Your task to perform on an android device: check the backup settings in the google photos Image 0: 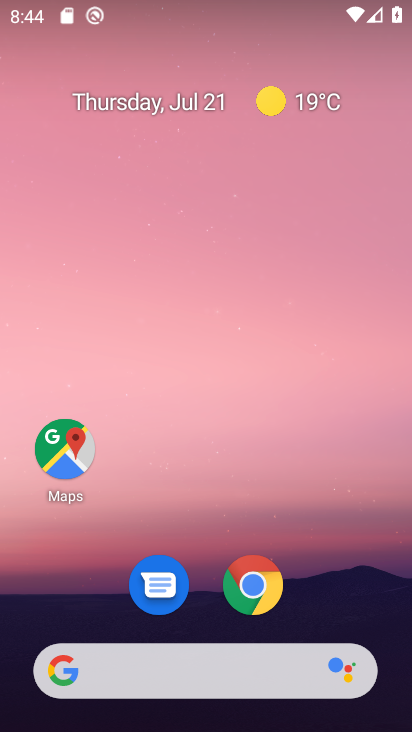
Step 0: drag from (332, 585) to (322, 88)
Your task to perform on an android device: check the backup settings in the google photos Image 1: 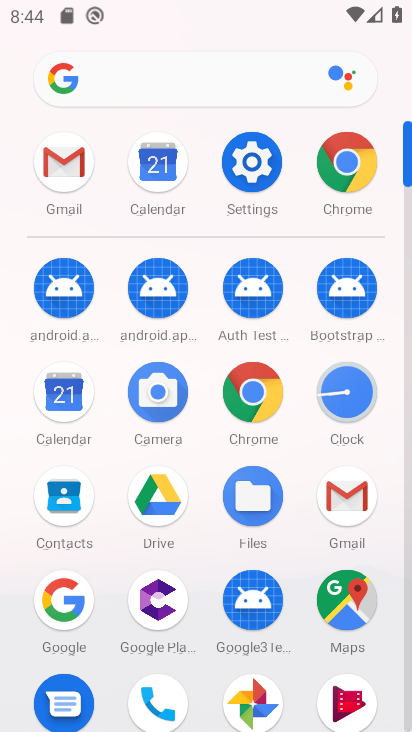
Step 1: drag from (303, 380) to (303, 163)
Your task to perform on an android device: check the backup settings in the google photos Image 2: 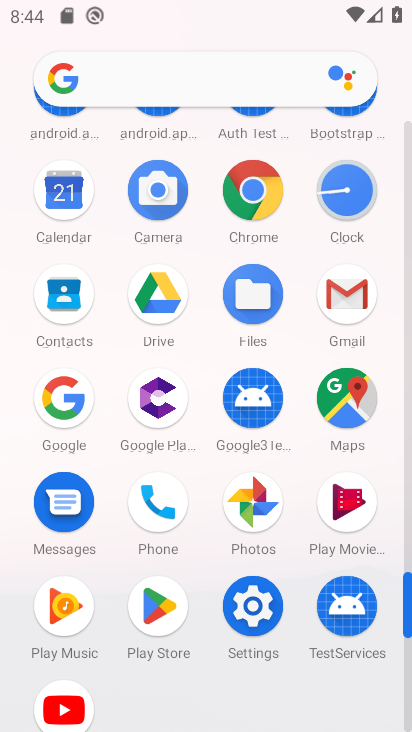
Step 2: click (262, 495)
Your task to perform on an android device: check the backup settings in the google photos Image 3: 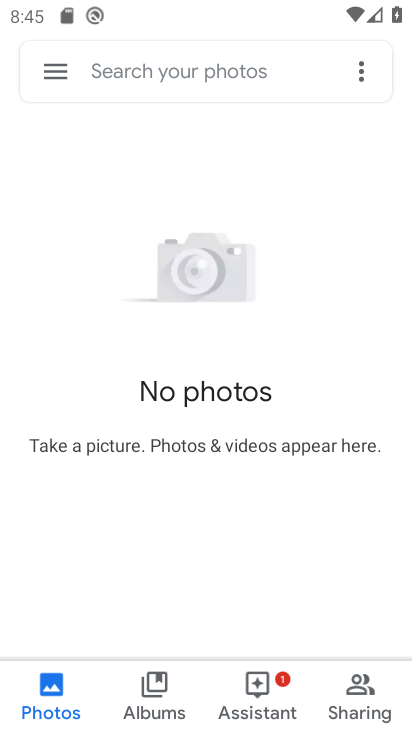
Step 3: click (54, 67)
Your task to perform on an android device: check the backup settings in the google photos Image 4: 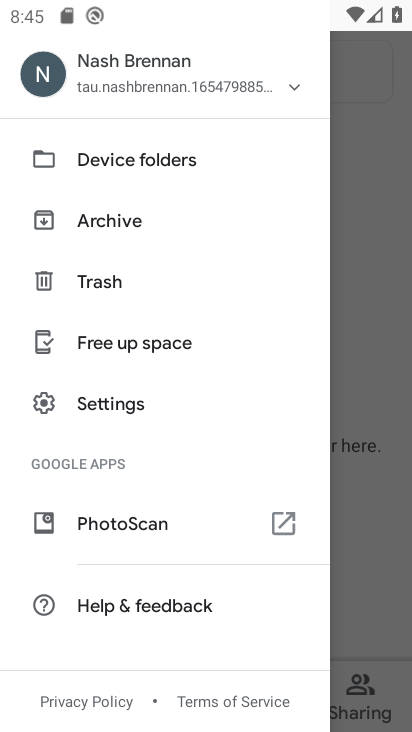
Step 4: click (116, 399)
Your task to perform on an android device: check the backup settings in the google photos Image 5: 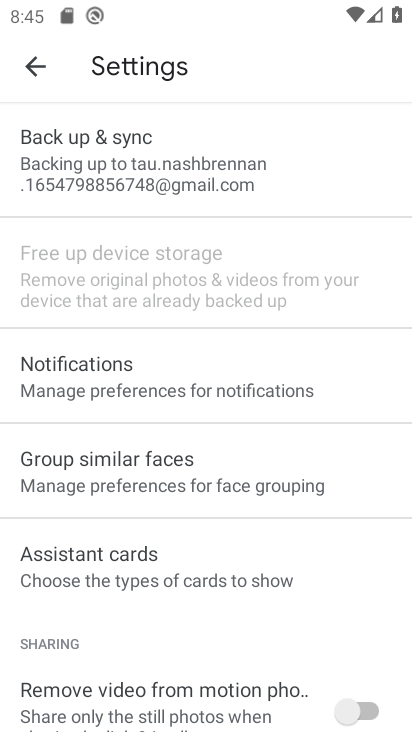
Step 5: click (191, 162)
Your task to perform on an android device: check the backup settings in the google photos Image 6: 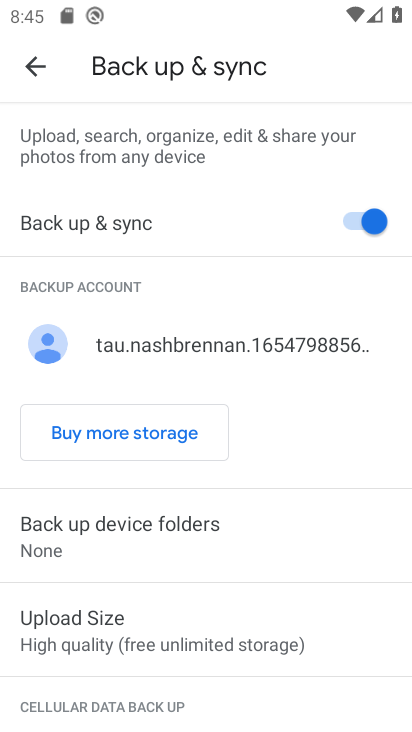
Step 6: task complete